Your task to perform on an android device: check google app version Image 0: 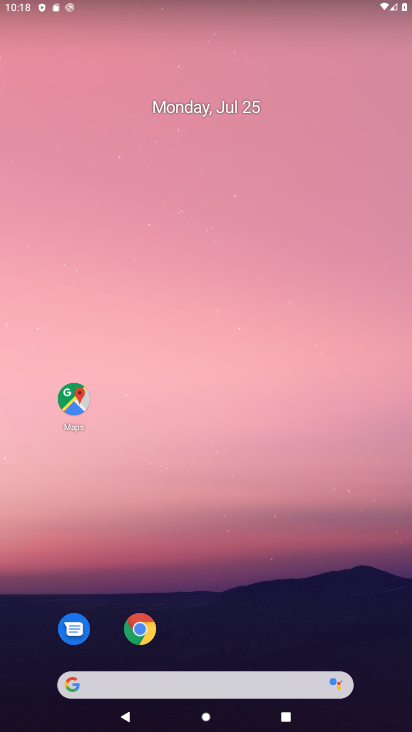
Step 0: drag from (248, 579) to (234, 37)
Your task to perform on an android device: check google app version Image 1: 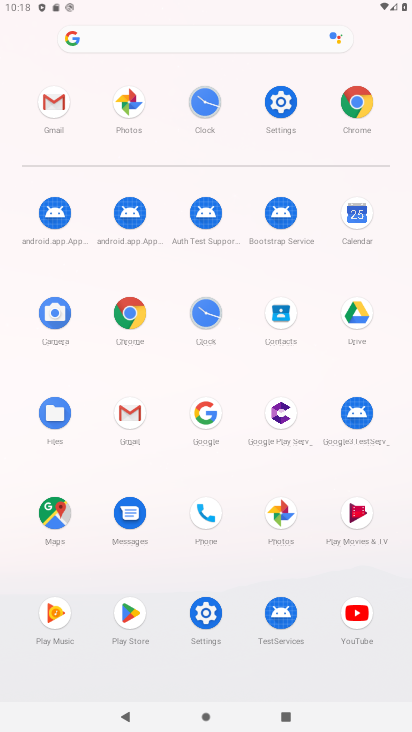
Step 1: click (210, 415)
Your task to perform on an android device: check google app version Image 2: 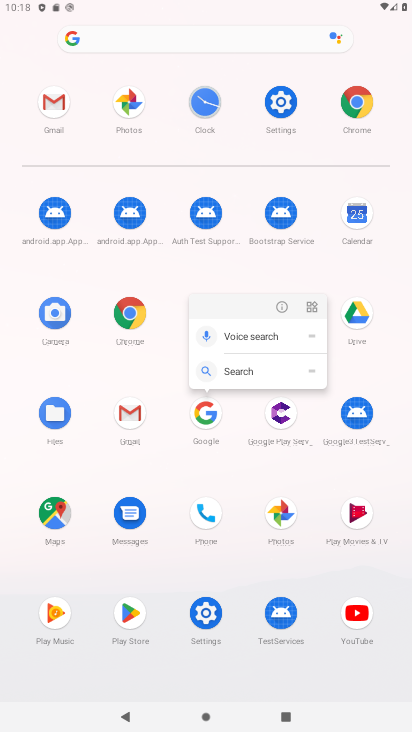
Step 2: click (285, 302)
Your task to perform on an android device: check google app version Image 3: 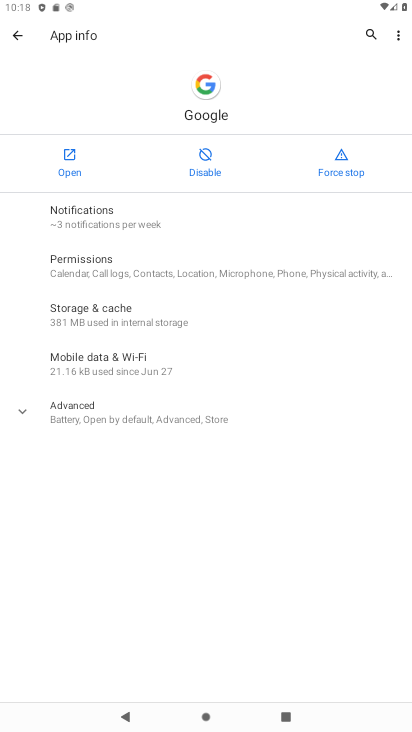
Step 3: click (26, 412)
Your task to perform on an android device: check google app version Image 4: 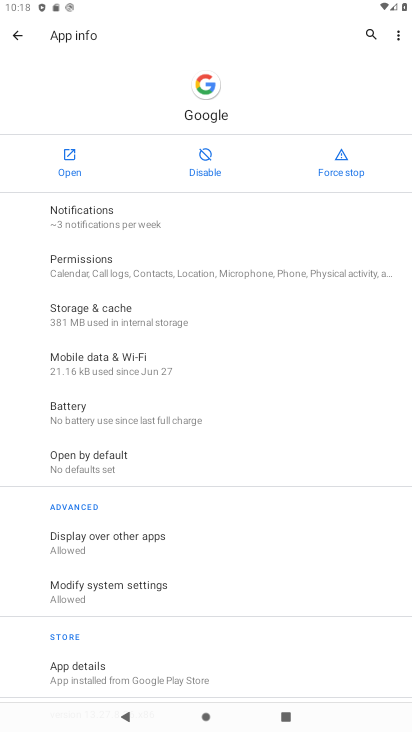
Step 4: task complete